Your task to perform on an android device: turn off sleep mode Image 0: 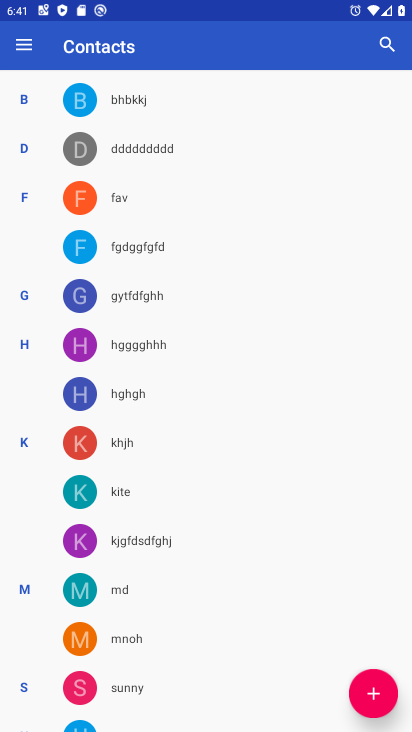
Step 0: press home button
Your task to perform on an android device: turn off sleep mode Image 1: 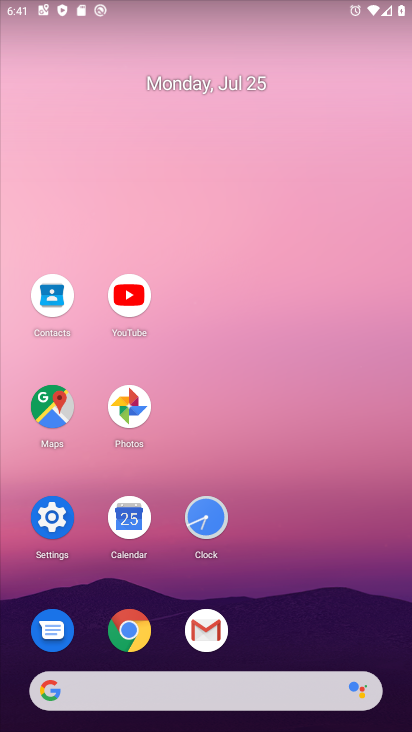
Step 1: click (53, 516)
Your task to perform on an android device: turn off sleep mode Image 2: 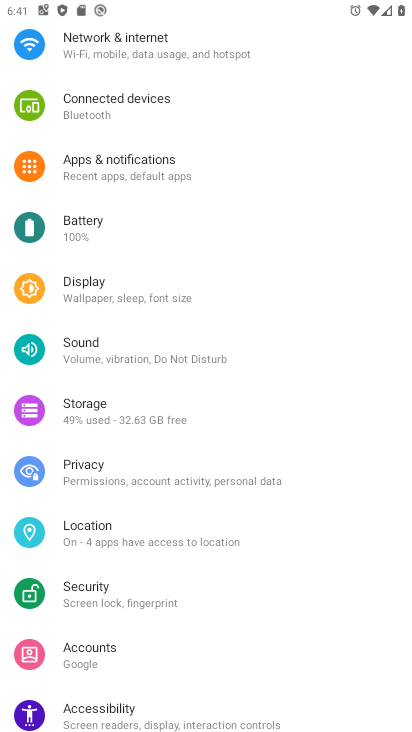
Step 2: click (94, 280)
Your task to perform on an android device: turn off sleep mode Image 3: 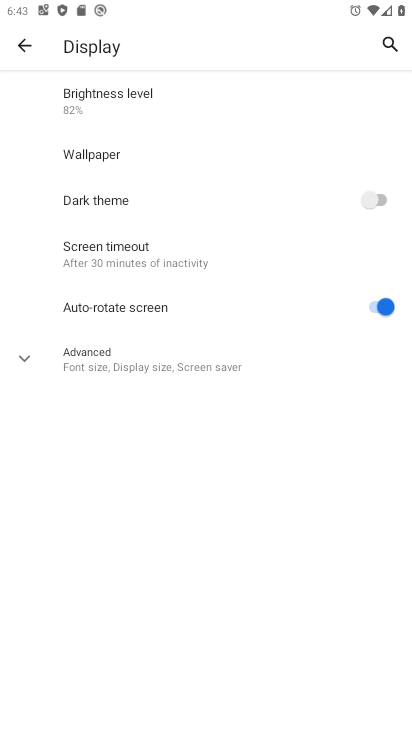
Step 3: task complete